Your task to perform on an android device: delete browsing data in the chrome app Image 0: 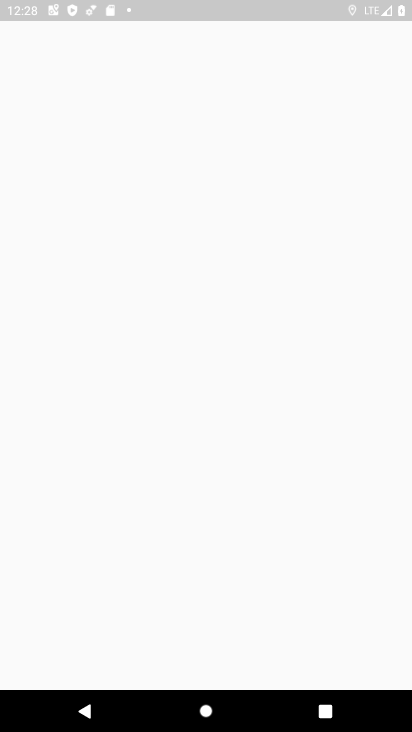
Step 0: press home button
Your task to perform on an android device: delete browsing data in the chrome app Image 1: 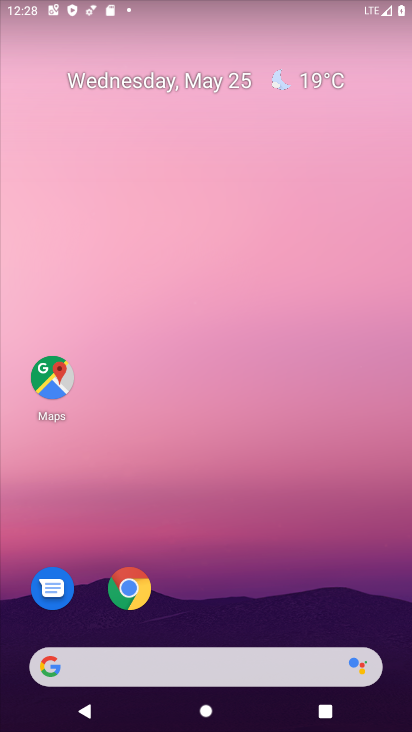
Step 1: click (127, 609)
Your task to perform on an android device: delete browsing data in the chrome app Image 2: 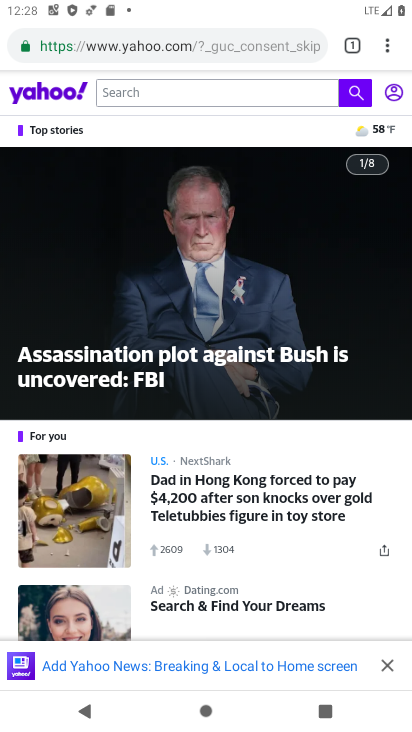
Step 2: drag from (392, 64) to (237, 544)
Your task to perform on an android device: delete browsing data in the chrome app Image 3: 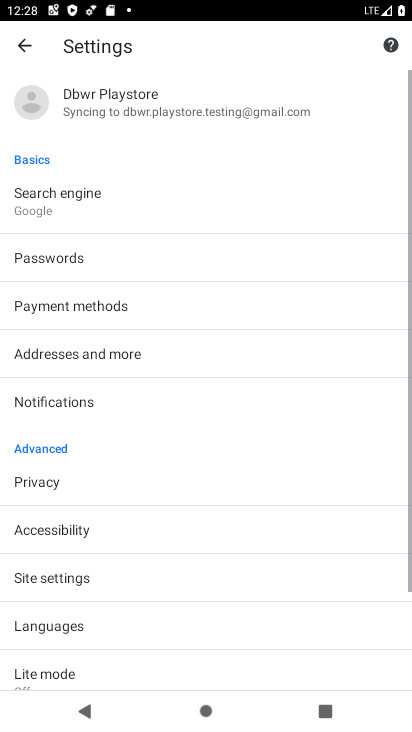
Step 3: drag from (95, 647) to (138, 455)
Your task to perform on an android device: delete browsing data in the chrome app Image 4: 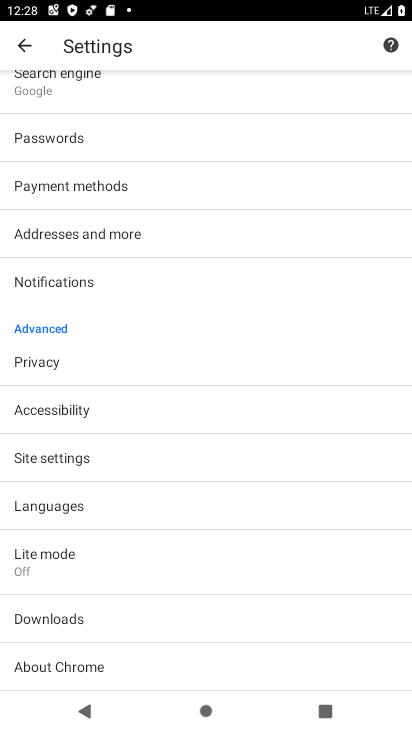
Step 4: click (60, 364)
Your task to perform on an android device: delete browsing data in the chrome app Image 5: 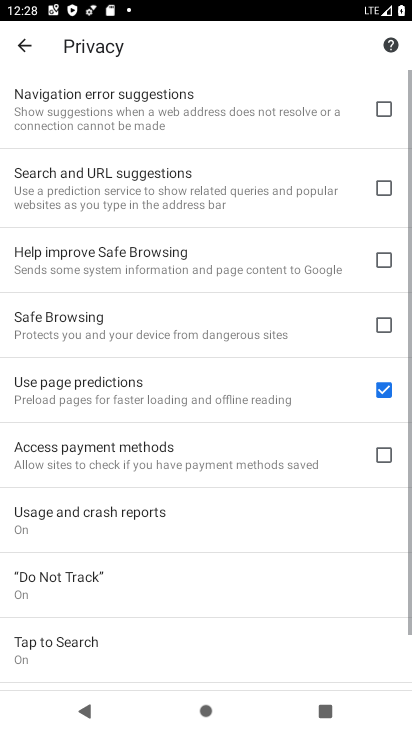
Step 5: drag from (89, 610) to (174, 202)
Your task to perform on an android device: delete browsing data in the chrome app Image 6: 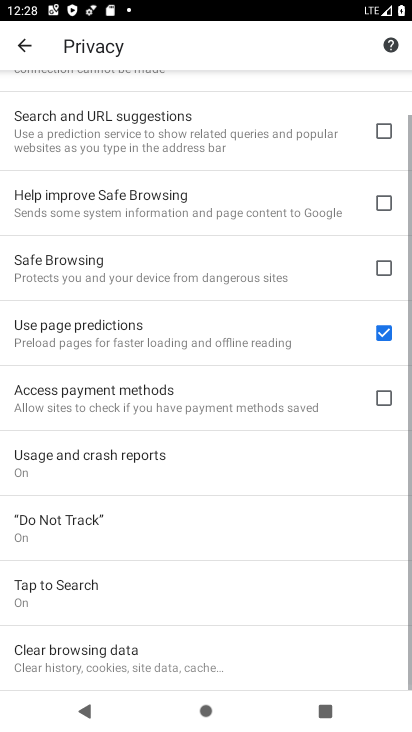
Step 6: click (93, 668)
Your task to perform on an android device: delete browsing data in the chrome app Image 7: 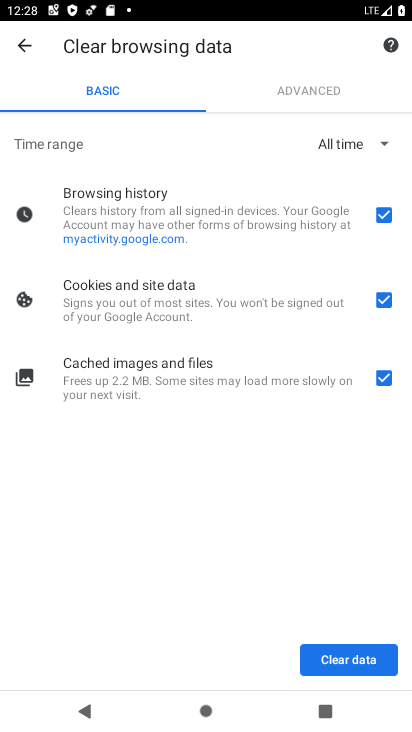
Step 7: click (354, 664)
Your task to perform on an android device: delete browsing data in the chrome app Image 8: 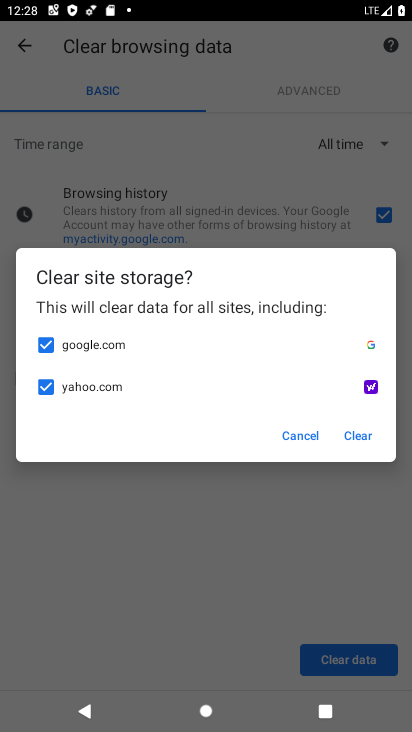
Step 8: click (372, 424)
Your task to perform on an android device: delete browsing data in the chrome app Image 9: 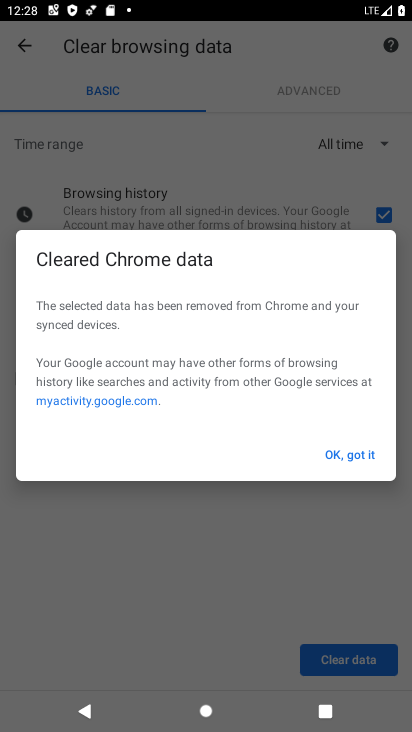
Step 9: click (362, 453)
Your task to perform on an android device: delete browsing data in the chrome app Image 10: 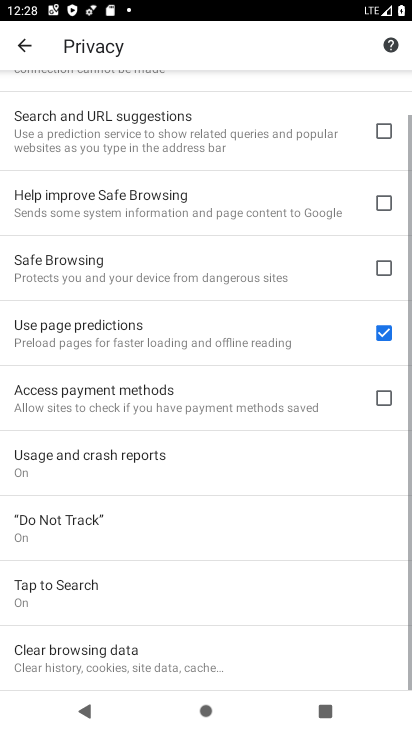
Step 10: task complete